Your task to perform on an android device: Open Wikipedia Image 0: 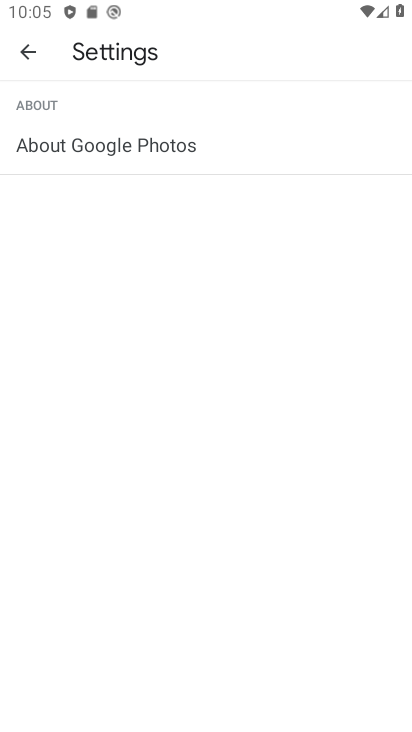
Step 0: press home button
Your task to perform on an android device: Open Wikipedia Image 1: 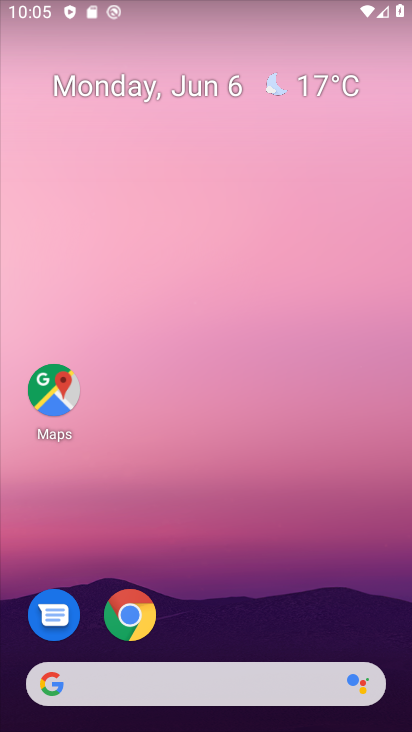
Step 1: click (132, 604)
Your task to perform on an android device: Open Wikipedia Image 2: 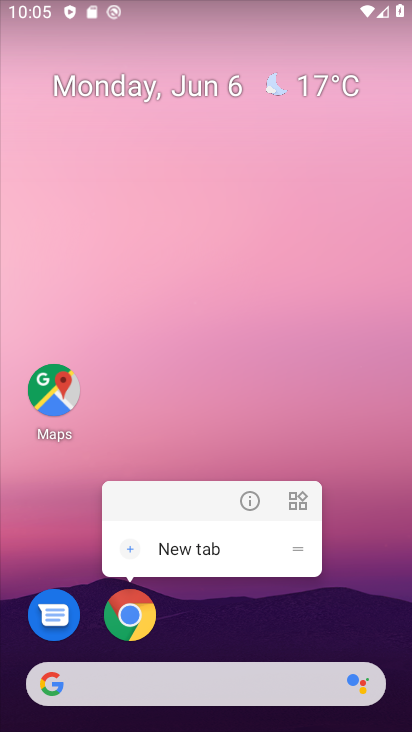
Step 2: click (117, 615)
Your task to perform on an android device: Open Wikipedia Image 3: 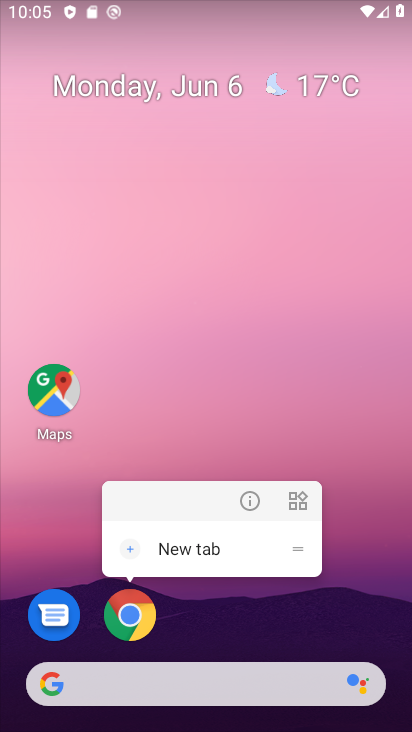
Step 3: click (133, 607)
Your task to perform on an android device: Open Wikipedia Image 4: 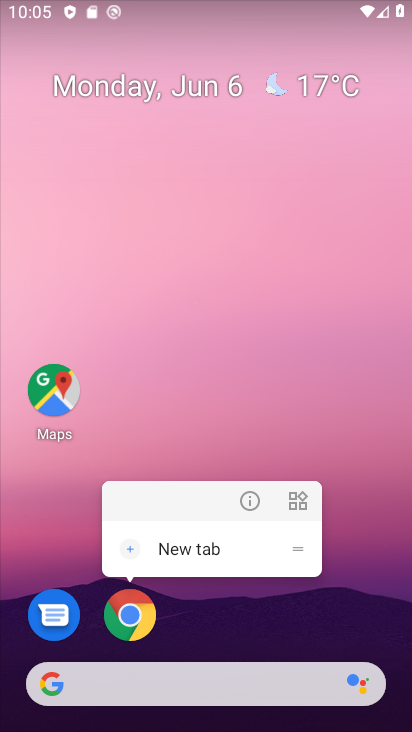
Step 4: click (127, 608)
Your task to perform on an android device: Open Wikipedia Image 5: 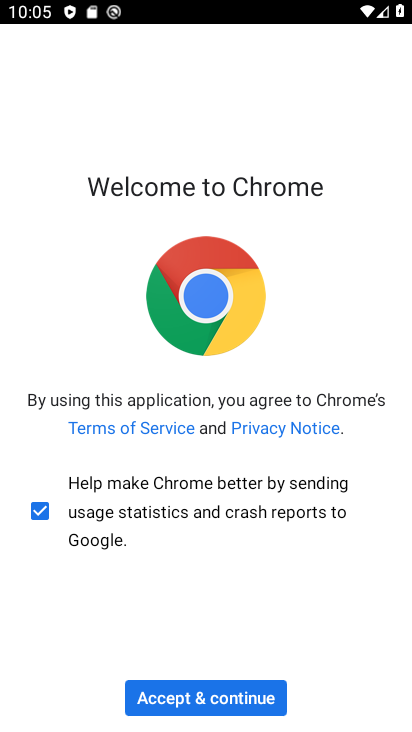
Step 5: click (231, 691)
Your task to perform on an android device: Open Wikipedia Image 6: 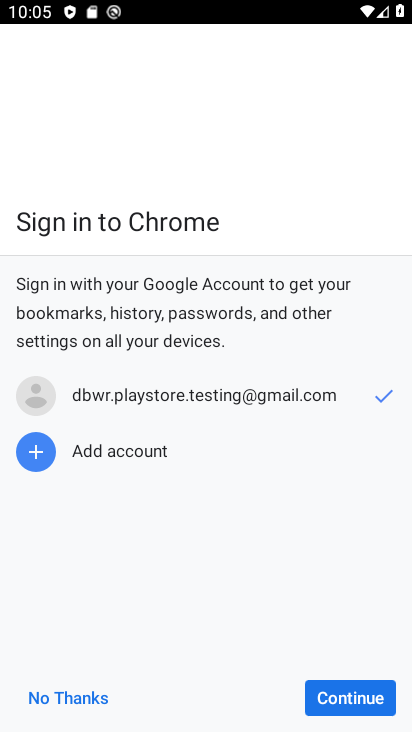
Step 6: click (360, 698)
Your task to perform on an android device: Open Wikipedia Image 7: 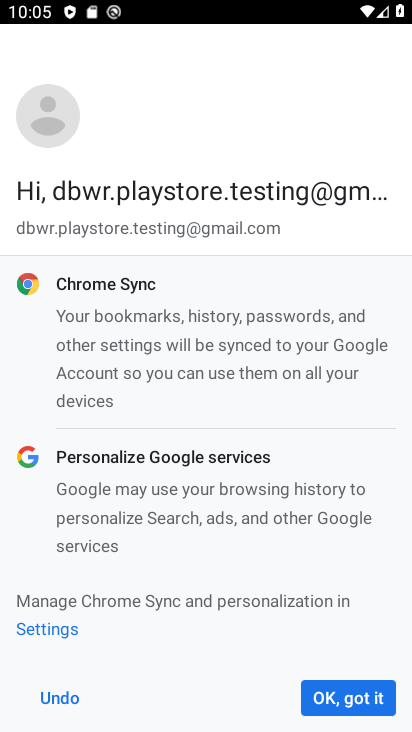
Step 7: click (351, 696)
Your task to perform on an android device: Open Wikipedia Image 8: 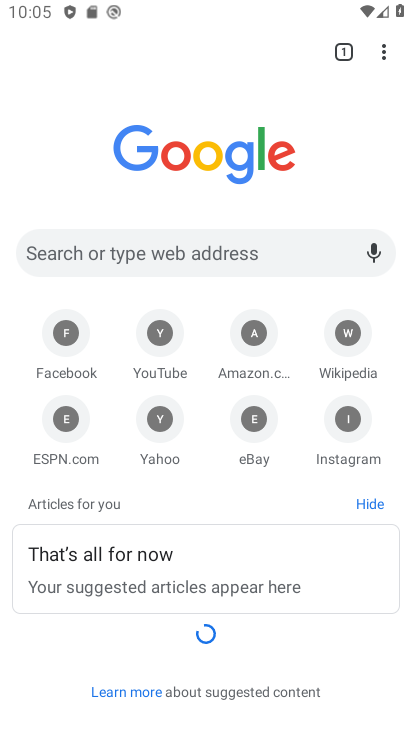
Step 8: click (348, 349)
Your task to perform on an android device: Open Wikipedia Image 9: 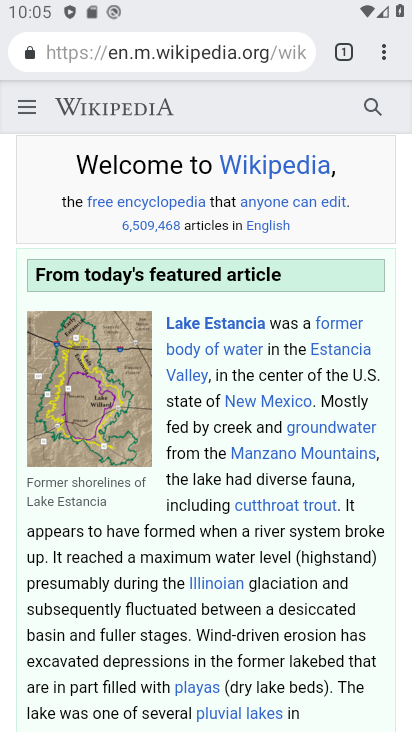
Step 9: task complete